Your task to perform on an android device: What's the weather today? Image 0: 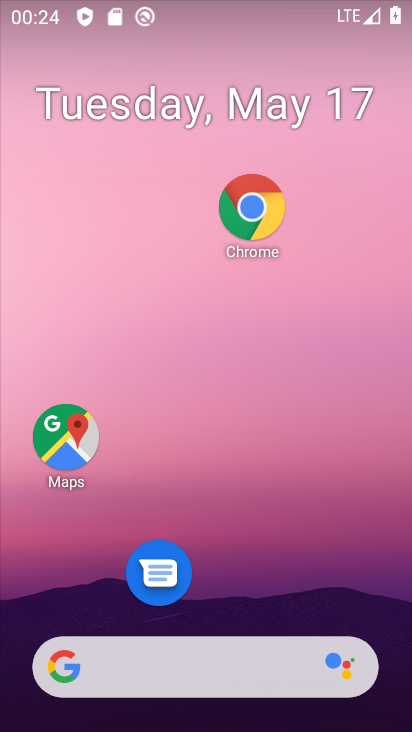
Step 0: drag from (251, 600) to (240, 97)
Your task to perform on an android device: What's the weather today? Image 1: 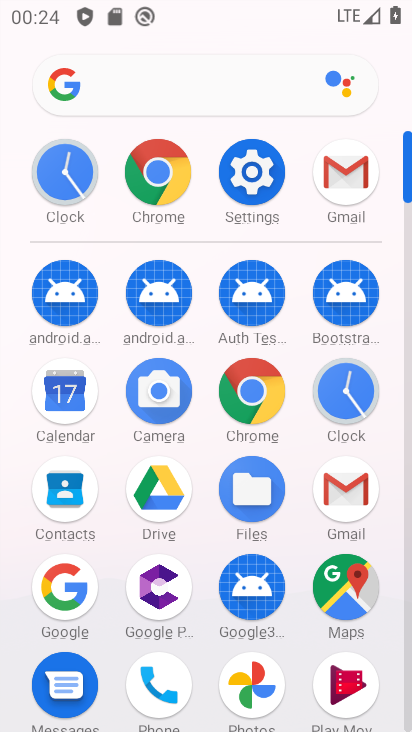
Step 1: click (246, 382)
Your task to perform on an android device: What's the weather today? Image 2: 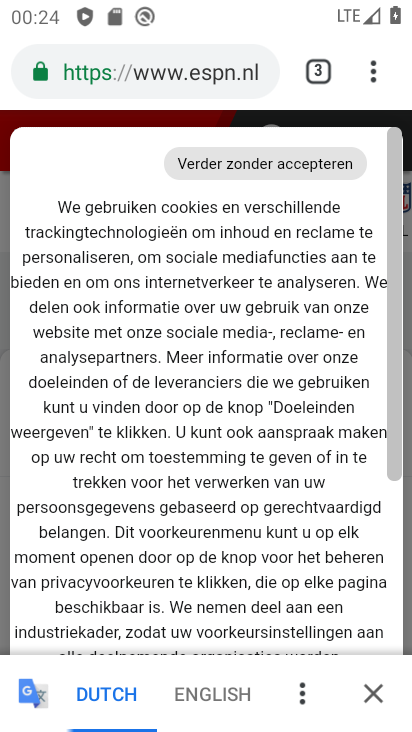
Step 2: click (222, 66)
Your task to perform on an android device: What's the weather today? Image 3: 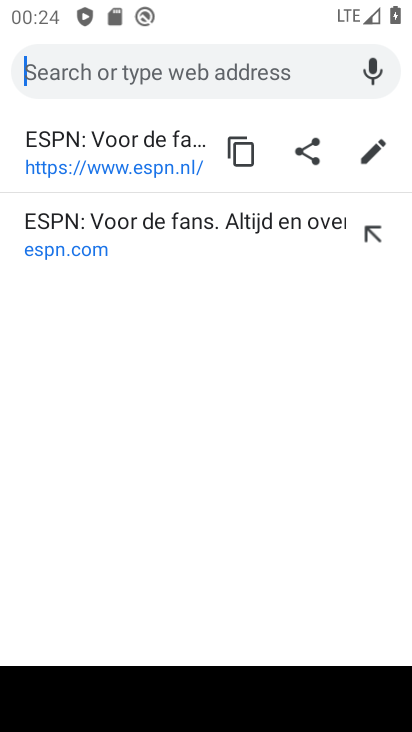
Step 3: press home button
Your task to perform on an android device: What's the weather today? Image 4: 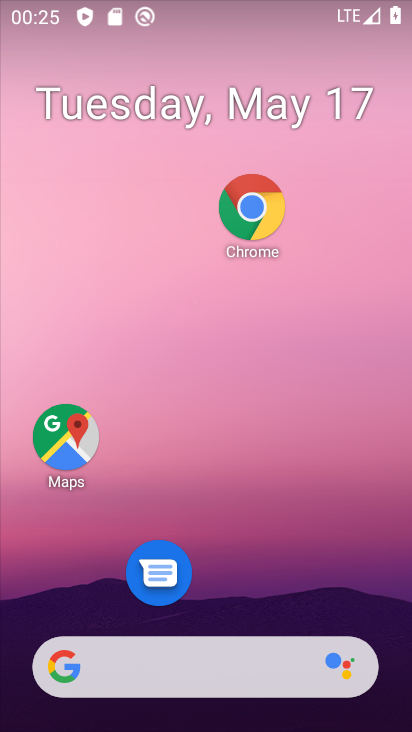
Step 4: drag from (95, 318) to (318, 319)
Your task to perform on an android device: What's the weather today? Image 5: 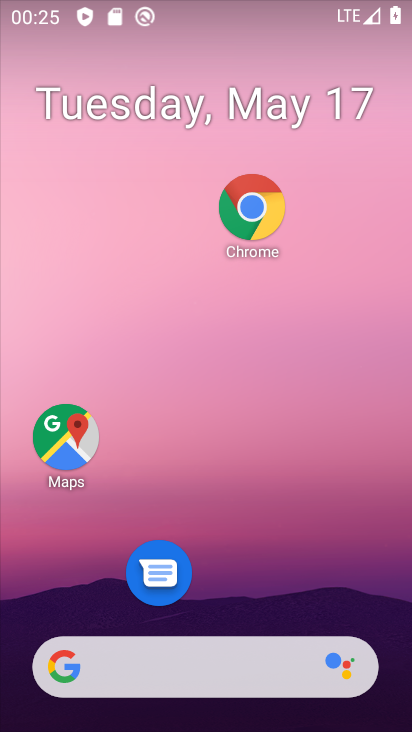
Step 5: drag from (24, 312) to (389, 293)
Your task to perform on an android device: What's the weather today? Image 6: 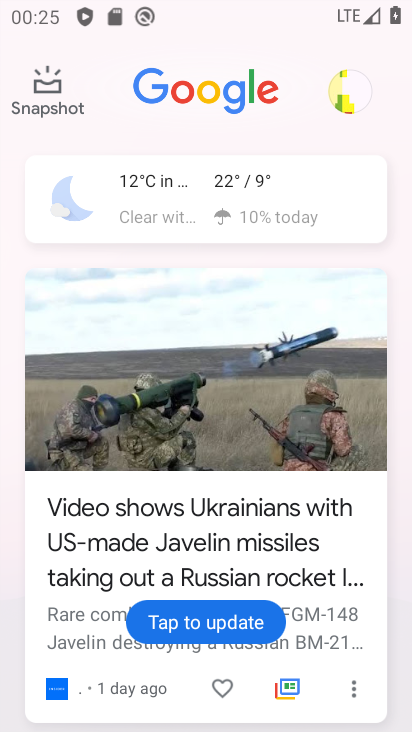
Step 6: click (256, 227)
Your task to perform on an android device: What's the weather today? Image 7: 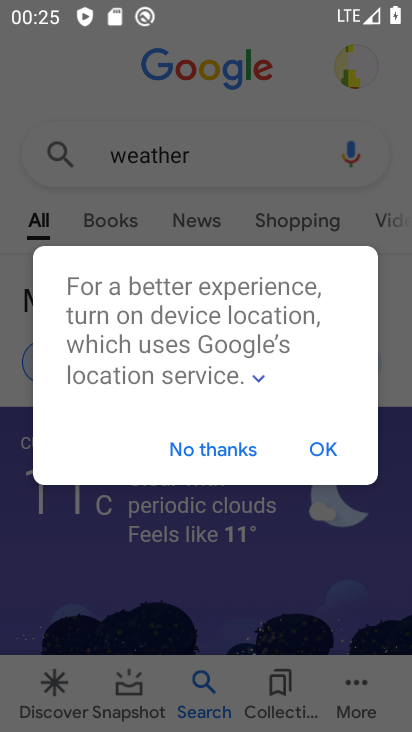
Step 7: click (309, 446)
Your task to perform on an android device: What's the weather today? Image 8: 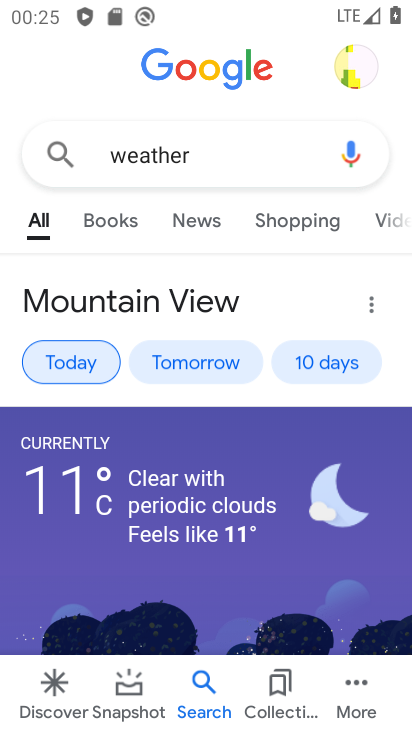
Step 8: task complete